Your task to perform on an android device: open chrome privacy settings Image 0: 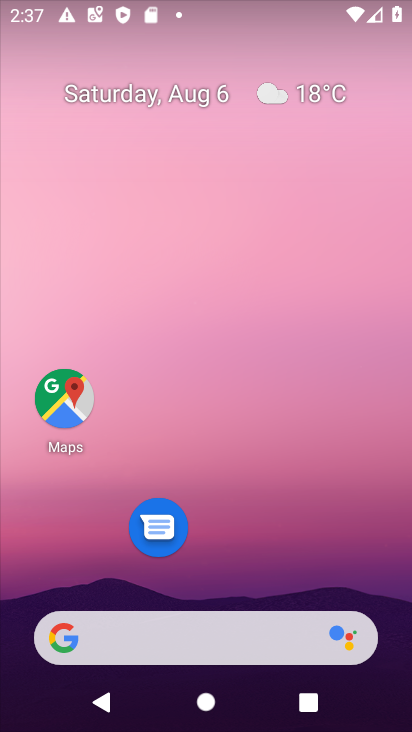
Step 0: drag from (280, 518) to (245, 59)
Your task to perform on an android device: open chrome privacy settings Image 1: 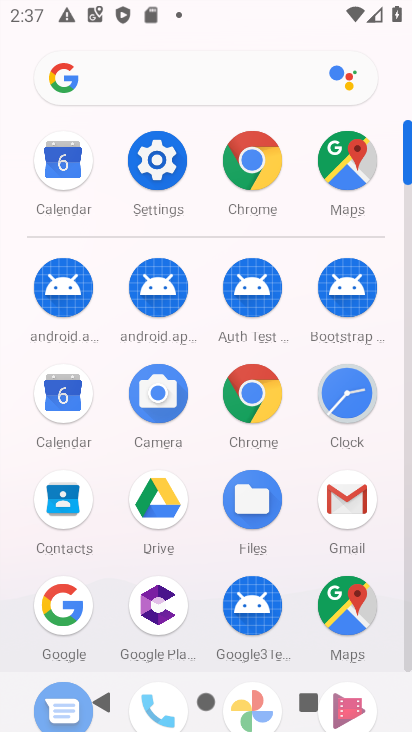
Step 1: drag from (201, 216) to (189, 54)
Your task to perform on an android device: open chrome privacy settings Image 2: 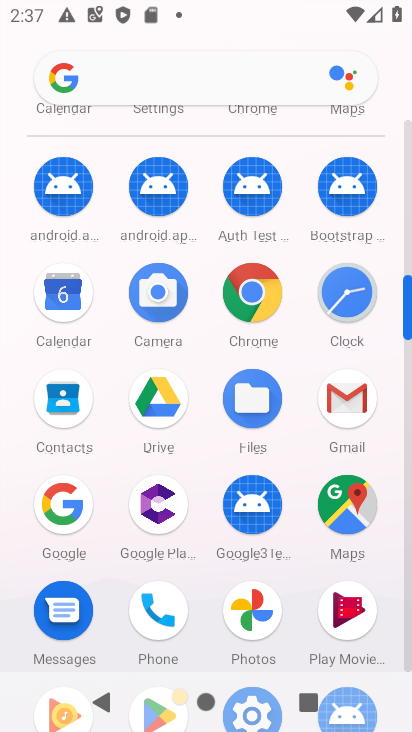
Step 2: drag from (208, 161) to (202, 0)
Your task to perform on an android device: open chrome privacy settings Image 3: 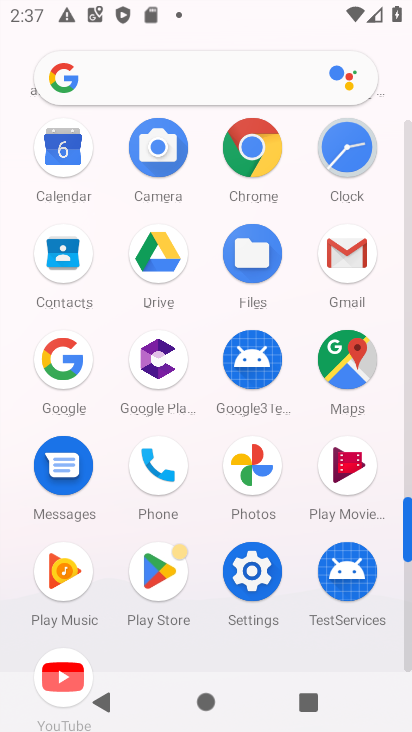
Step 3: click (260, 582)
Your task to perform on an android device: open chrome privacy settings Image 4: 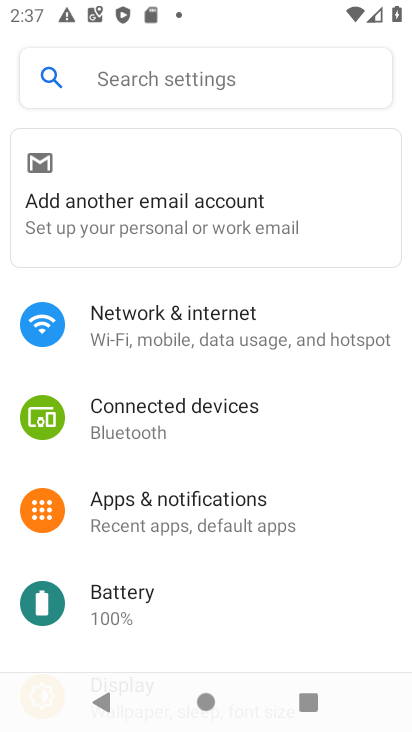
Step 4: drag from (250, 484) to (242, 221)
Your task to perform on an android device: open chrome privacy settings Image 5: 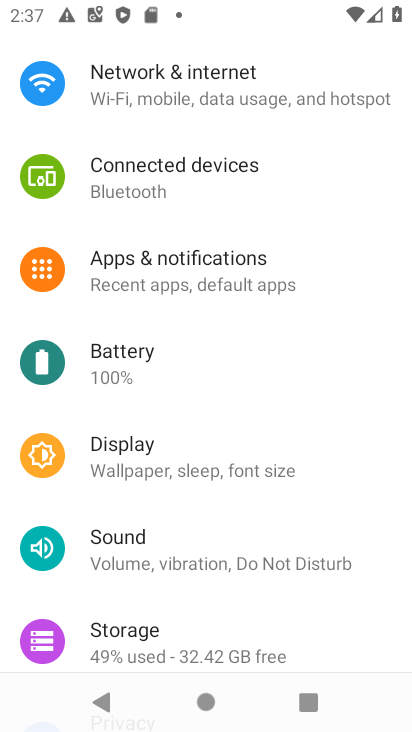
Step 5: drag from (191, 587) to (194, 290)
Your task to perform on an android device: open chrome privacy settings Image 6: 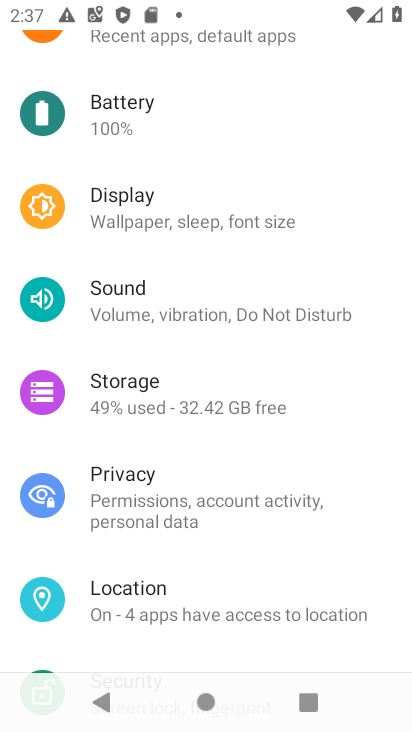
Step 6: click (196, 499)
Your task to perform on an android device: open chrome privacy settings Image 7: 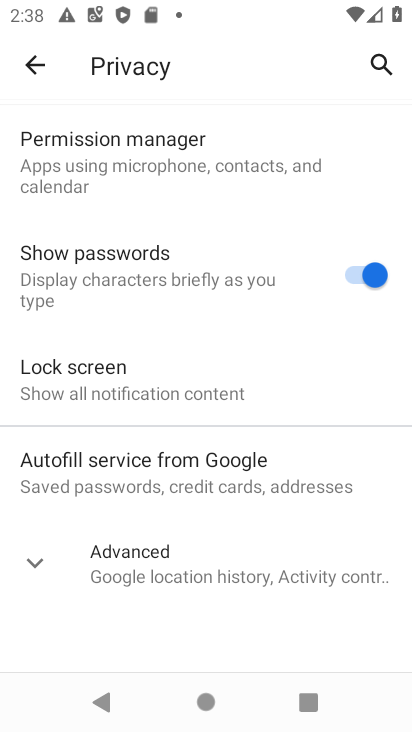
Step 7: task complete